Your task to perform on an android device: change the clock style Image 0: 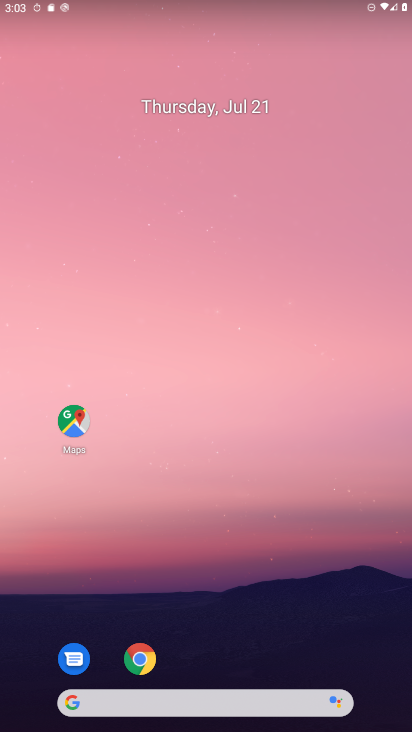
Step 0: drag from (18, 721) to (294, 183)
Your task to perform on an android device: change the clock style Image 1: 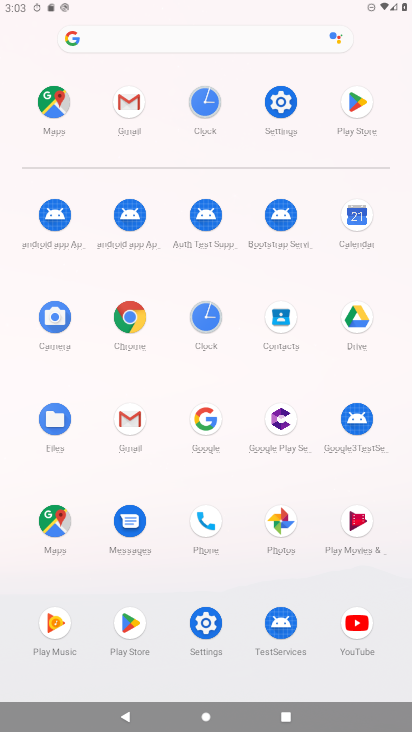
Step 1: click (215, 106)
Your task to perform on an android device: change the clock style Image 2: 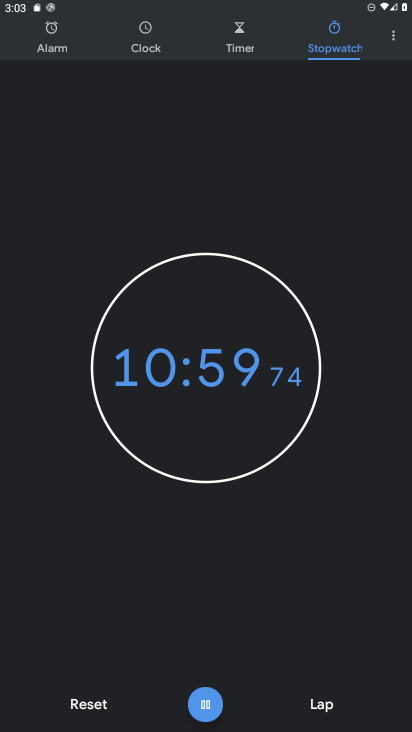
Step 2: click (397, 39)
Your task to perform on an android device: change the clock style Image 3: 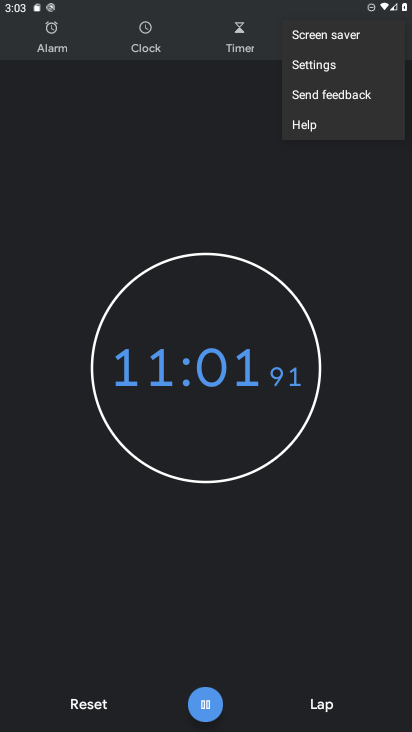
Step 3: click (306, 70)
Your task to perform on an android device: change the clock style Image 4: 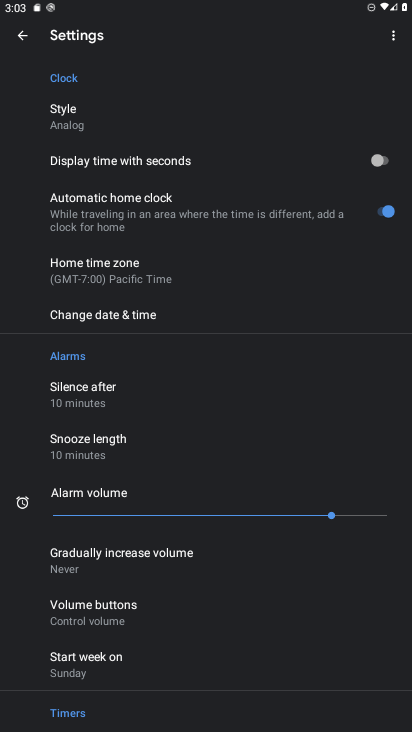
Step 4: click (91, 129)
Your task to perform on an android device: change the clock style Image 5: 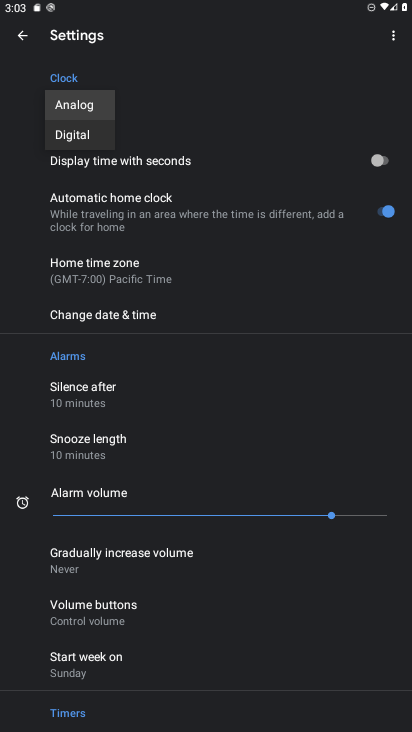
Step 5: click (76, 143)
Your task to perform on an android device: change the clock style Image 6: 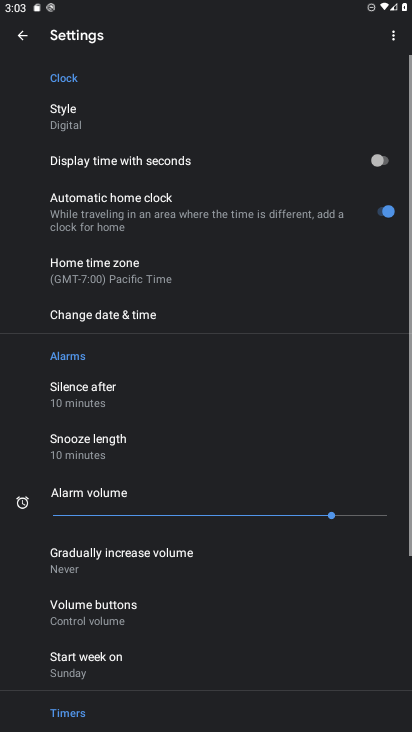
Step 6: task complete